Your task to perform on an android device: toggle translation in the chrome app Image 0: 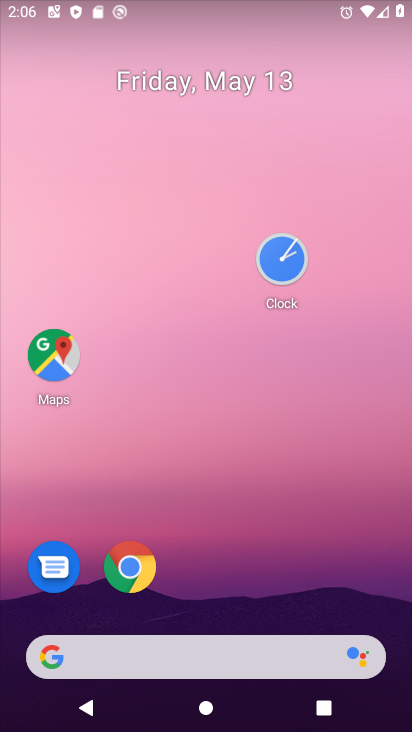
Step 0: click (148, 597)
Your task to perform on an android device: toggle translation in the chrome app Image 1: 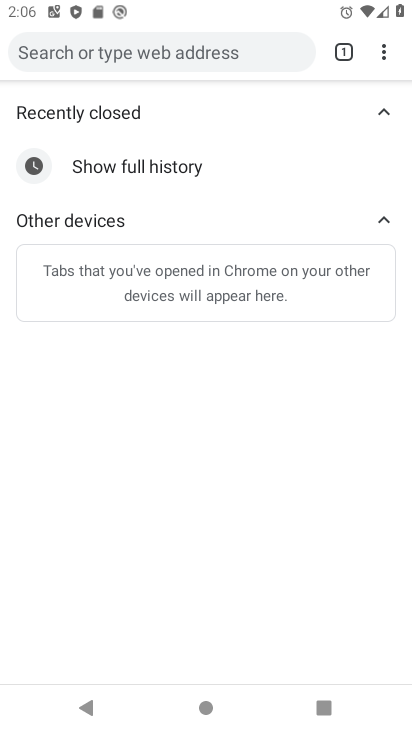
Step 1: click (380, 65)
Your task to perform on an android device: toggle translation in the chrome app Image 2: 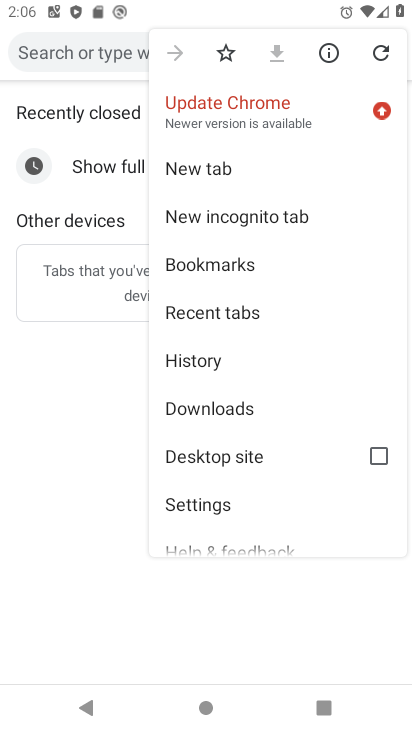
Step 2: click (211, 506)
Your task to perform on an android device: toggle translation in the chrome app Image 3: 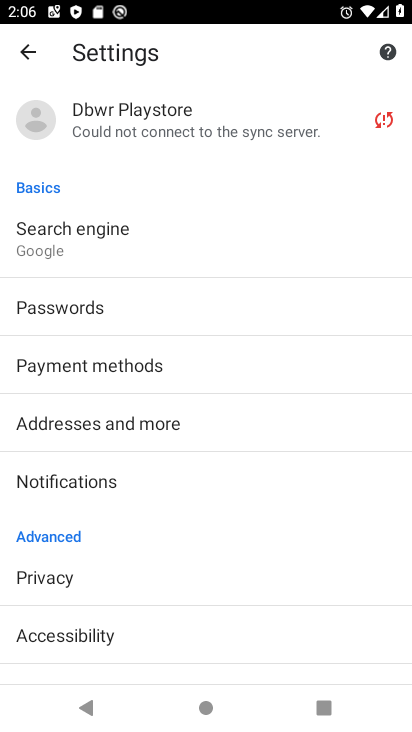
Step 3: click (32, 52)
Your task to perform on an android device: toggle translation in the chrome app Image 4: 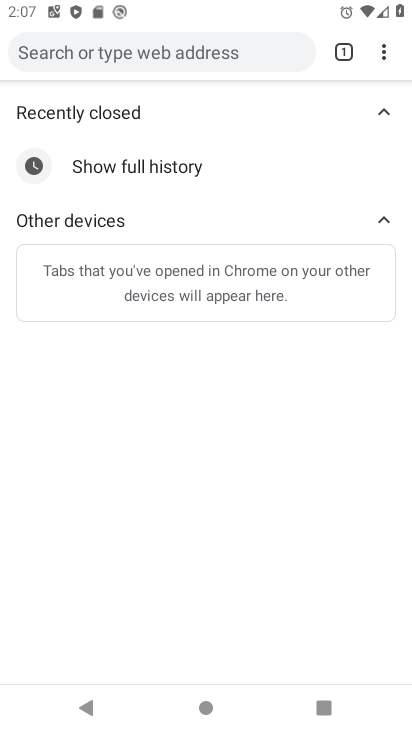
Step 4: click (392, 67)
Your task to perform on an android device: toggle translation in the chrome app Image 5: 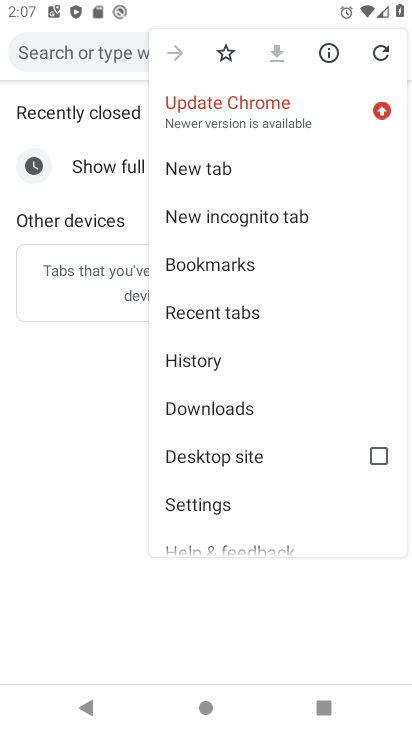
Step 5: click (227, 499)
Your task to perform on an android device: toggle translation in the chrome app Image 6: 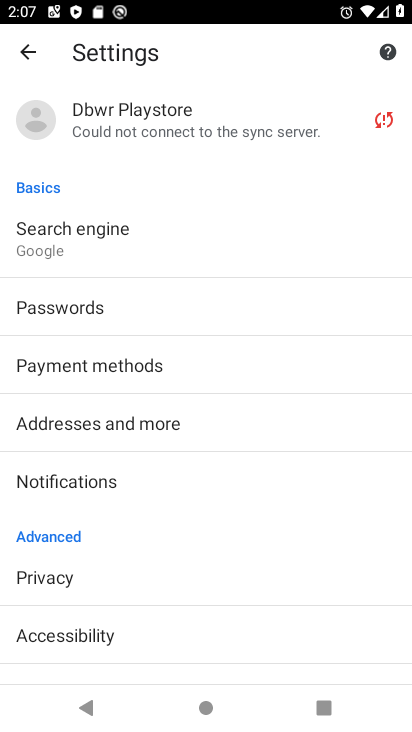
Step 6: drag from (203, 588) to (209, 326)
Your task to perform on an android device: toggle translation in the chrome app Image 7: 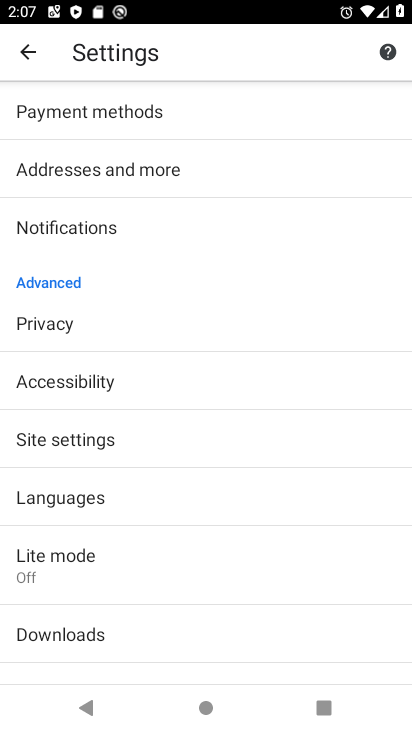
Step 7: click (182, 476)
Your task to perform on an android device: toggle translation in the chrome app Image 8: 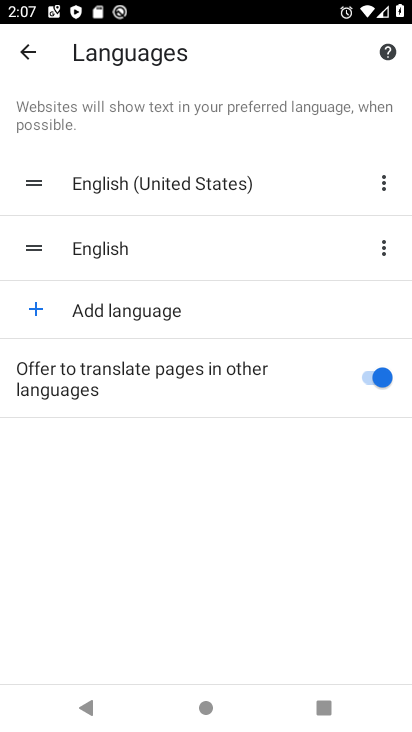
Step 8: task complete